Your task to perform on an android device: Go to Google Image 0: 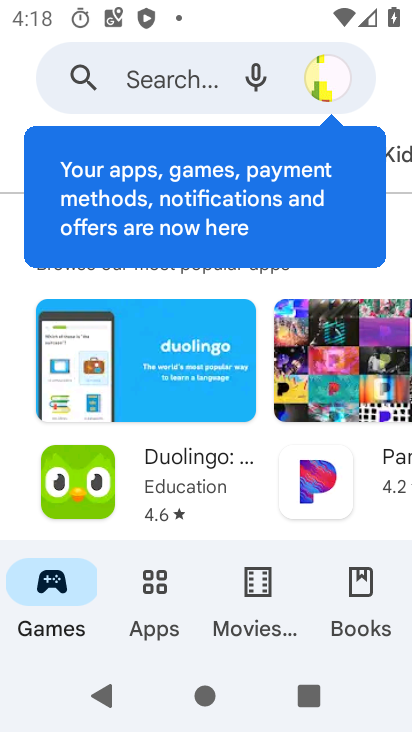
Step 0: press home button
Your task to perform on an android device: Go to Google Image 1: 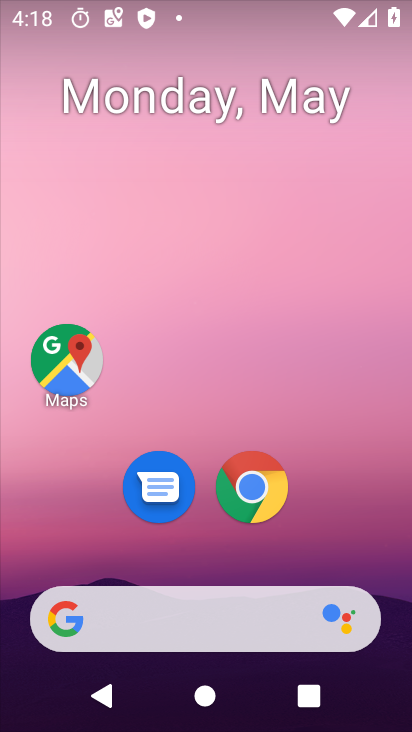
Step 1: drag from (359, 560) to (335, 13)
Your task to perform on an android device: Go to Google Image 2: 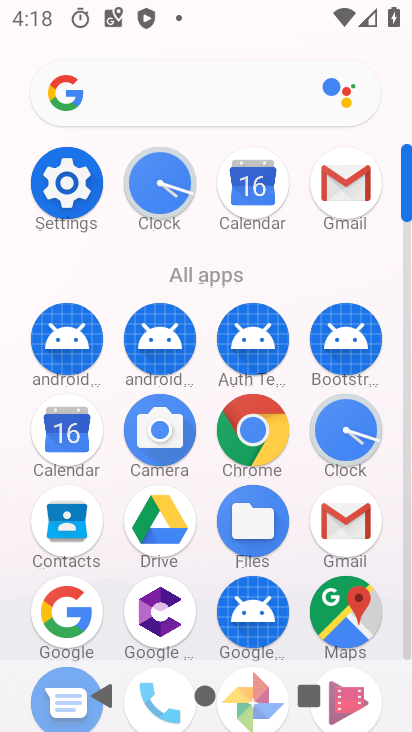
Step 2: click (60, 601)
Your task to perform on an android device: Go to Google Image 3: 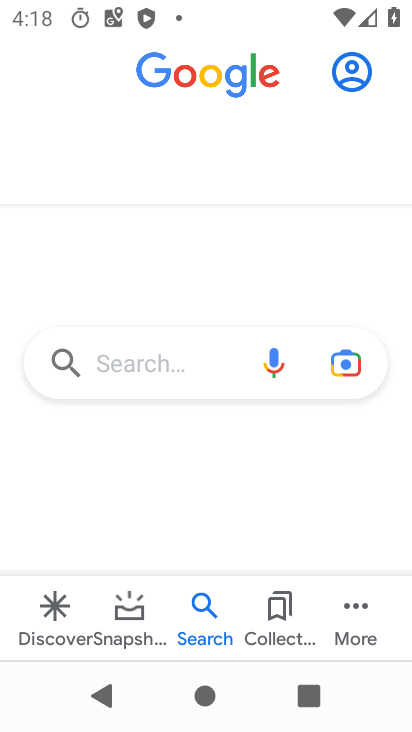
Step 3: task complete